Your task to perform on an android device: empty trash in google photos Image 0: 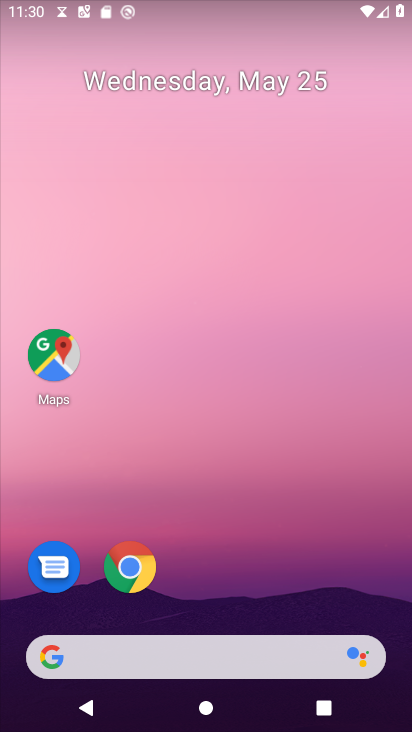
Step 0: click (297, 589)
Your task to perform on an android device: empty trash in google photos Image 1: 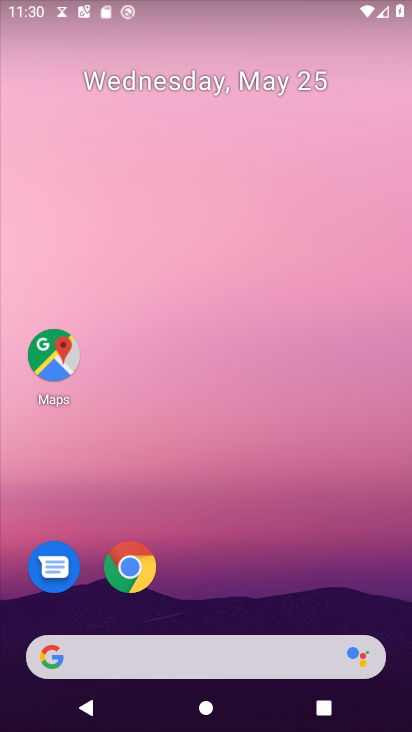
Step 1: drag from (184, 565) to (326, 18)
Your task to perform on an android device: empty trash in google photos Image 2: 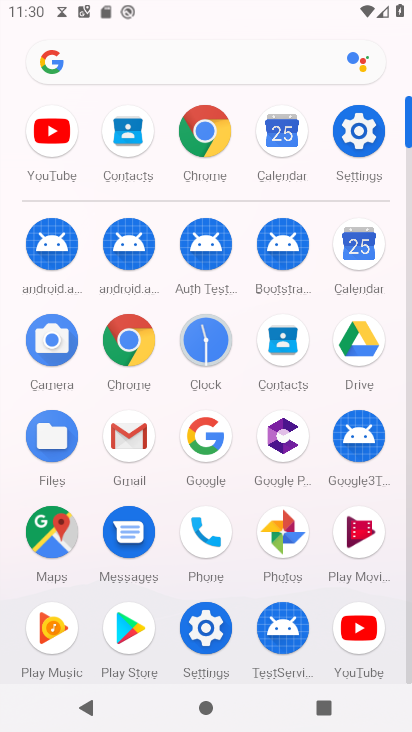
Step 2: click (316, 515)
Your task to perform on an android device: empty trash in google photos Image 3: 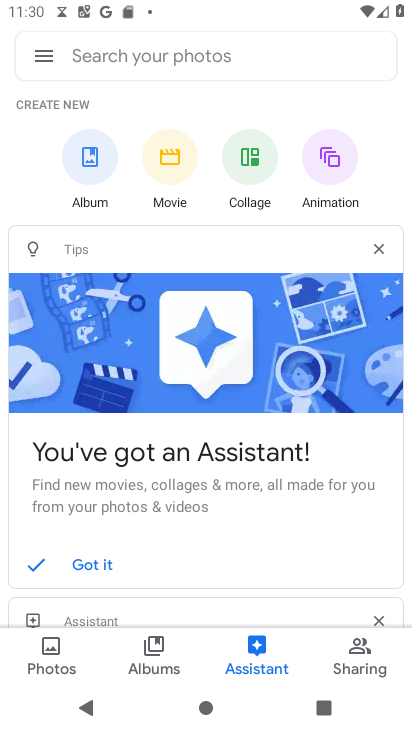
Step 3: click (125, 669)
Your task to perform on an android device: empty trash in google photos Image 4: 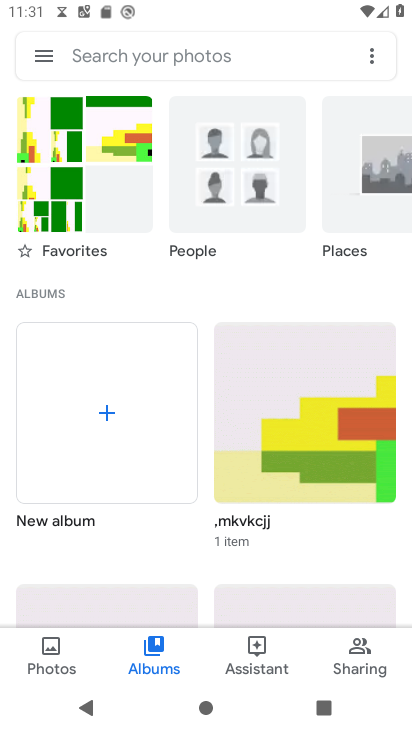
Step 4: click (46, 48)
Your task to perform on an android device: empty trash in google photos Image 5: 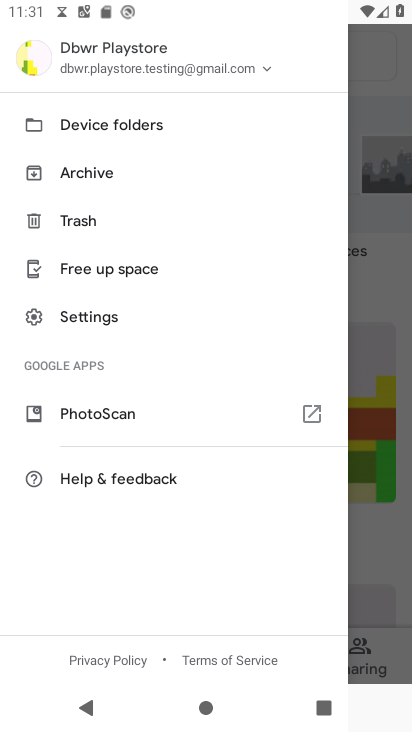
Step 5: click (110, 222)
Your task to perform on an android device: empty trash in google photos Image 6: 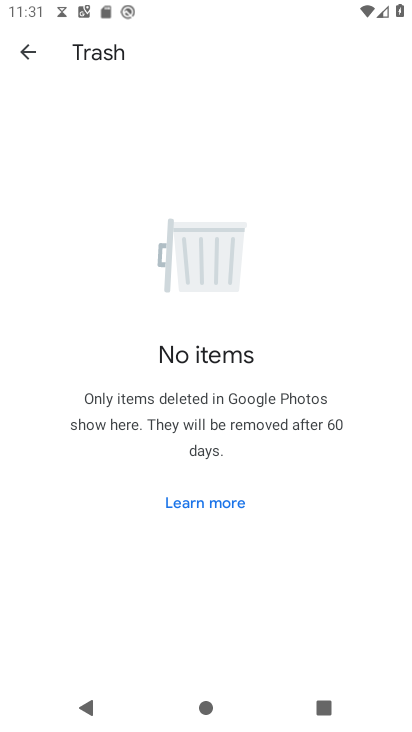
Step 6: task complete